Your task to perform on an android device: Open Google Maps and go to "Timeline" Image 0: 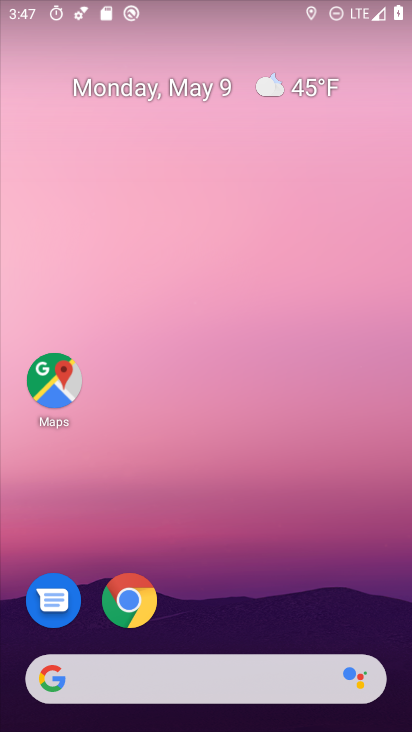
Step 0: drag from (232, 623) to (292, 84)
Your task to perform on an android device: Open Google Maps and go to "Timeline" Image 1: 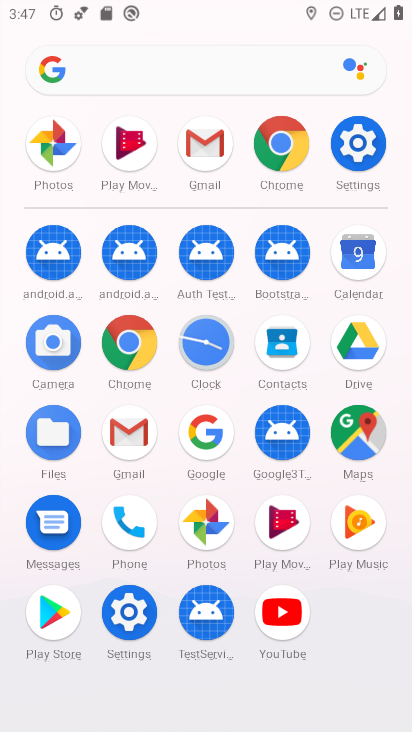
Step 1: click (362, 435)
Your task to perform on an android device: Open Google Maps and go to "Timeline" Image 2: 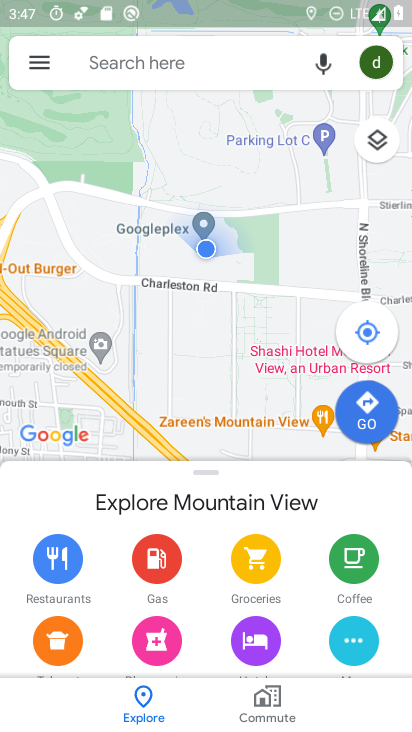
Step 2: click (31, 63)
Your task to perform on an android device: Open Google Maps and go to "Timeline" Image 3: 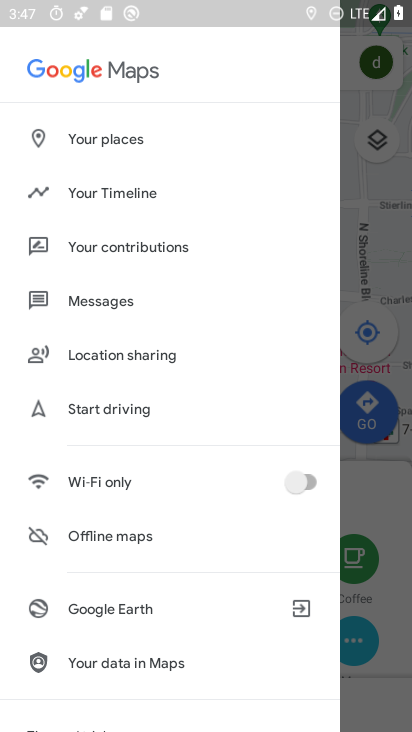
Step 3: click (127, 190)
Your task to perform on an android device: Open Google Maps and go to "Timeline" Image 4: 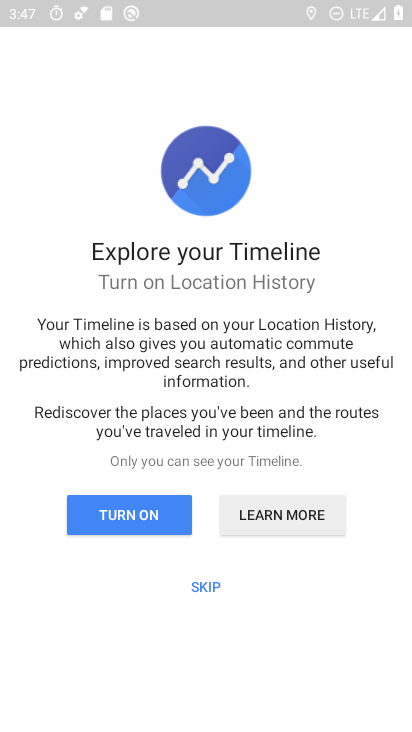
Step 4: click (213, 584)
Your task to perform on an android device: Open Google Maps and go to "Timeline" Image 5: 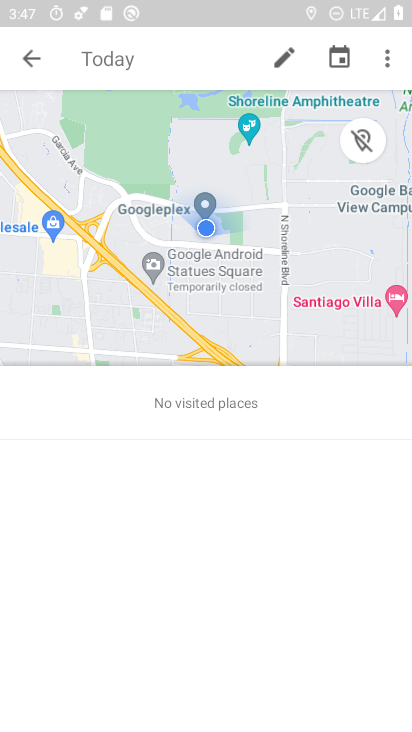
Step 5: task complete